Your task to perform on an android device: turn on data saver in the chrome app Image 0: 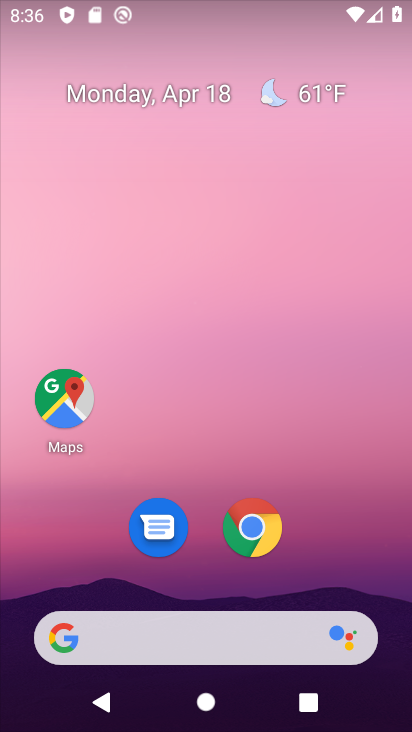
Step 0: click (256, 528)
Your task to perform on an android device: turn on data saver in the chrome app Image 1: 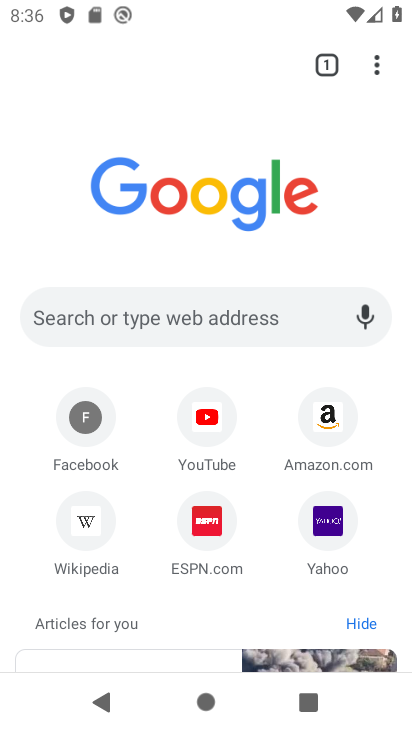
Step 1: click (378, 62)
Your task to perform on an android device: turn on data saver in the chrome app Image 2: 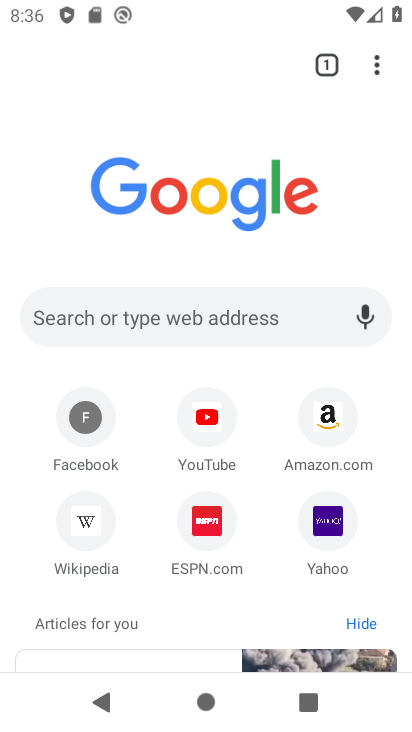
Step 2: click (379, 63)
Your task to perform on an android device: turn on data saver in the chrome app Image 3: 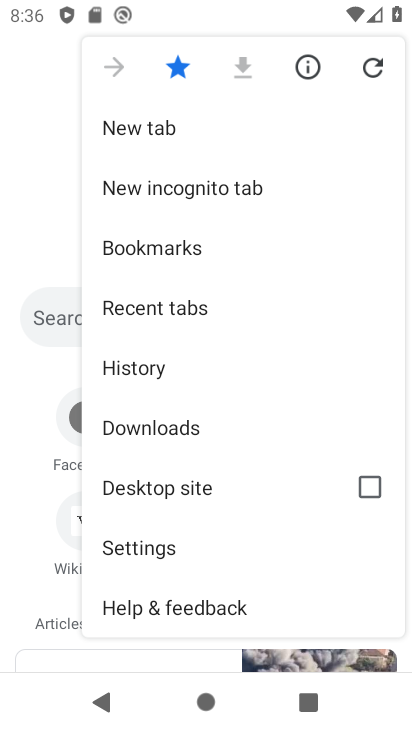
Step 3: click (151, 556)
Your task to perform on an android device: turn on data saver in the chrome app Image 4: 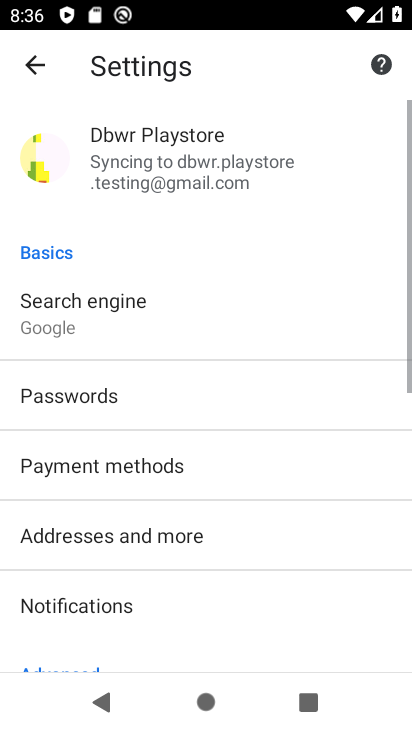
Step 4: drag from (270, 565) to (268, 172)
Your task to perform on an android device: turn on data saver in the chrome app Image 5: 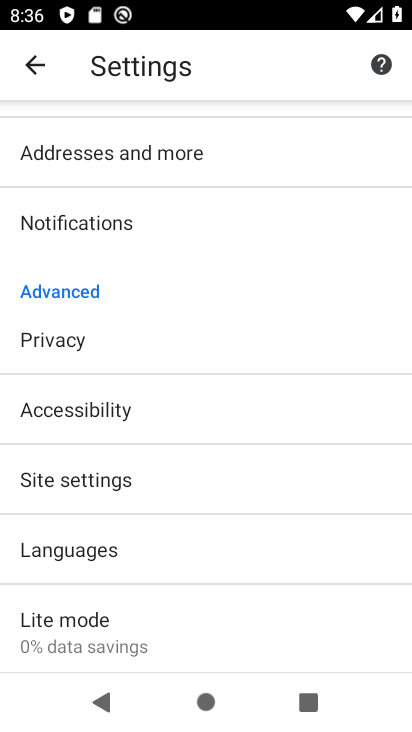
Step 5: click (46, 630)
Your task to perform on an android device: turn on data saver in the chrome app Image 6: 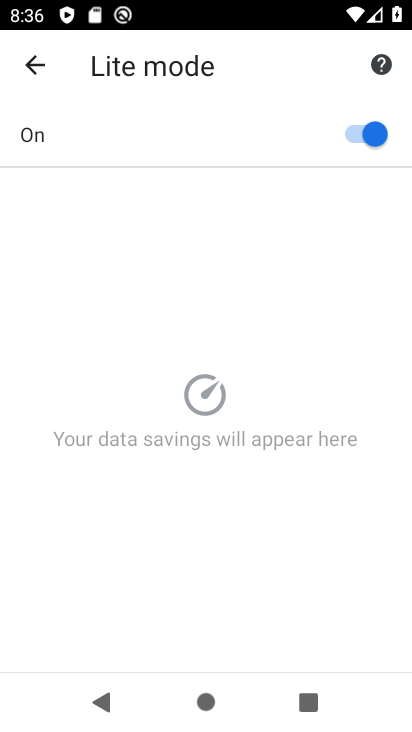
Step 6: task complete